Your task to perform on an android device: change notification settings in the gmail app Image 0: 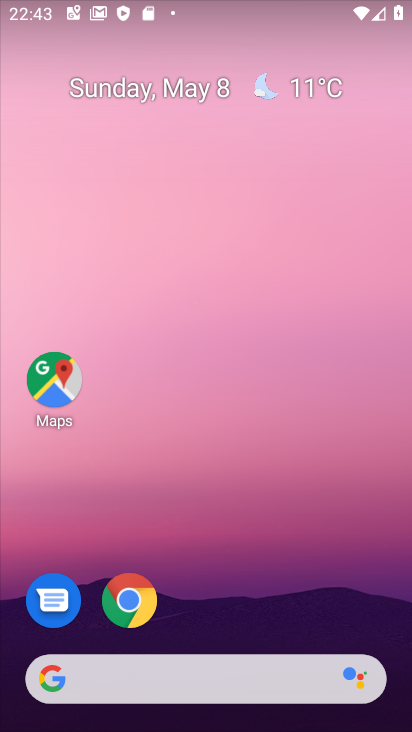
Step 0: drag from (261, 631) to (188, 250)
Your task to perform on an android device: change notification settings in the gmail app Image 1: 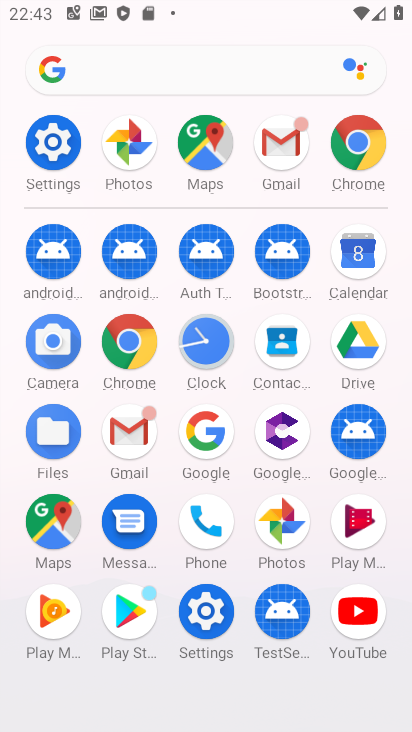
Step 1: click (277, 158)
Your task to perform on an android device: change notification settings in the gmail app Image 2: 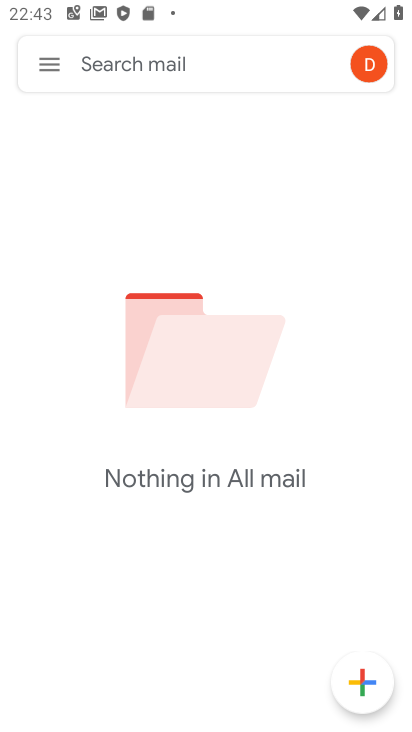
Step 2: click (62, 61)
Your task to perform on an android device: change notification settings in the gmail app Image 3: 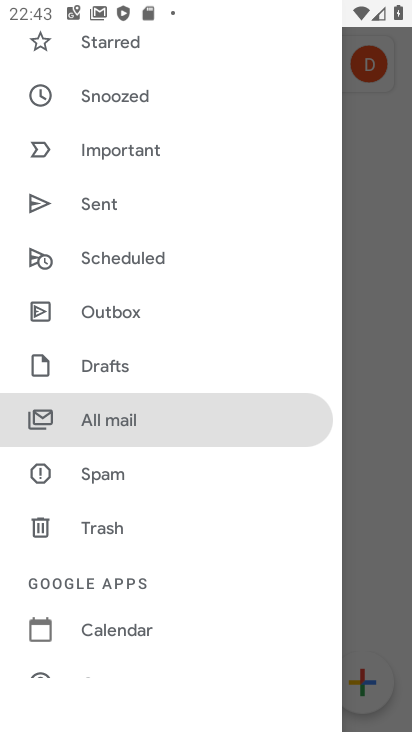
Step 3: drag from (163, 593) to (193, 116)
Your task to perform on an android device: change notification settings in the gmail app Image 4: 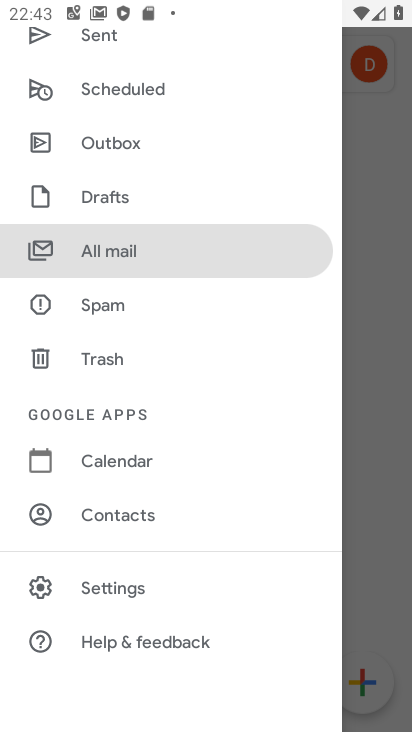
Step 4: click (163, 582)
Your task to perform on an android device: change notification settings in the gmail app Image 5: 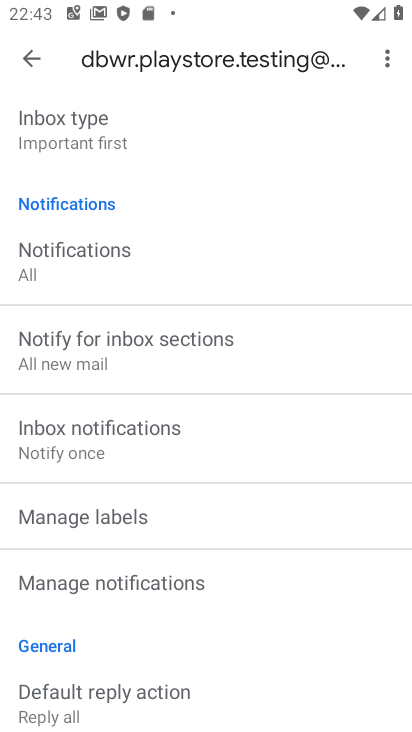
Step 5: click (99, 280)
Your task to perform on an android device: change notification settings in the gmail app Image 6: 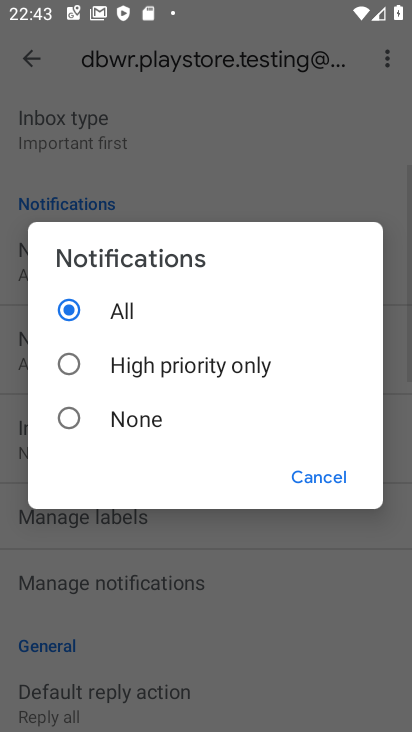
Step 6: click (212, 385)
Your task to perform on an android device: change notification settings in the gmail app Image 7: 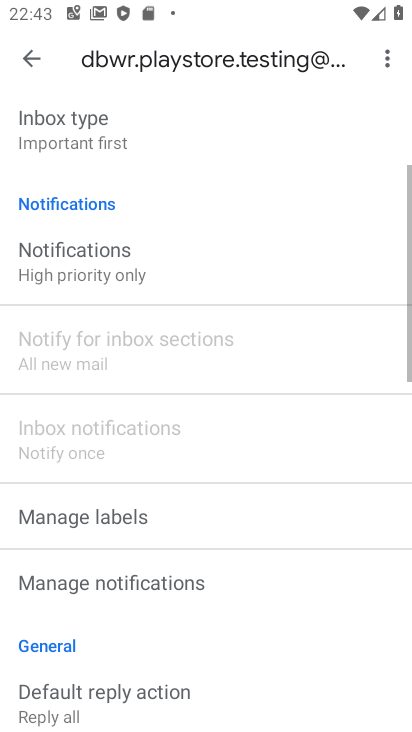
Step 7: task complete